Your task to perform on an android device: add a contact in the contacts app Image 0: 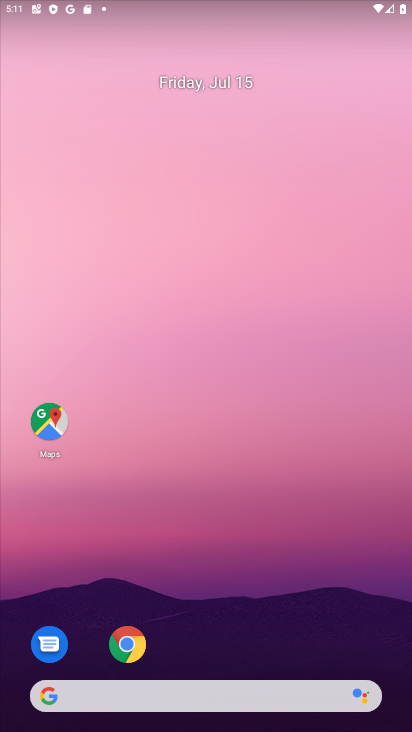
Step 0: drag from (187, 663) to (250, 210)
Your task to perform on an android device: add a contact in the contacts app Image 1: 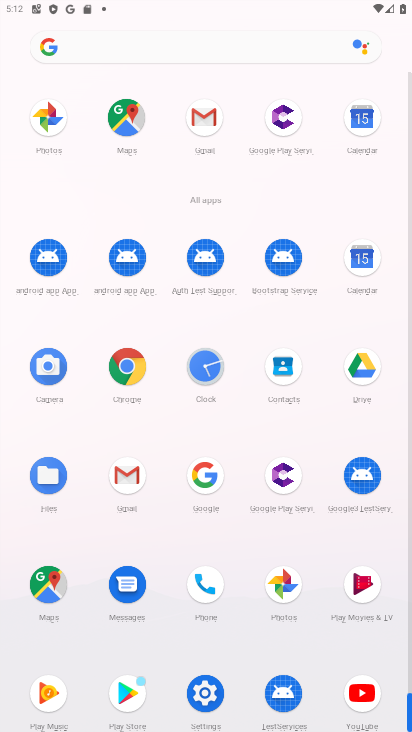
Step 1: click (203, 594)
Your task to perform on an android device: add a contact in the contacts app Image 2: 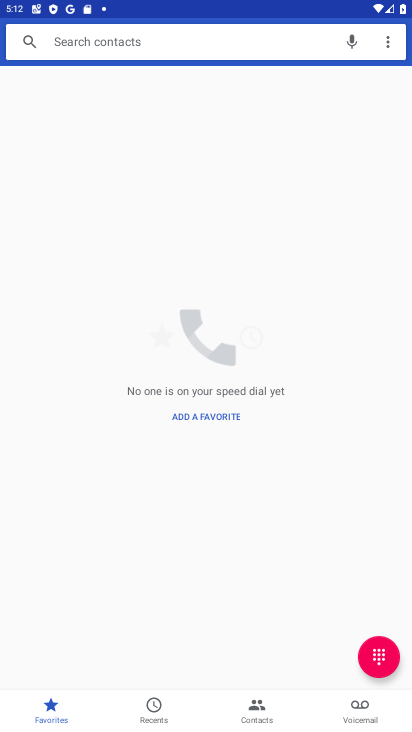
Step 2: click (386, 650)
Your task to perform on an android device: add a contact in the contacts app Image 3: 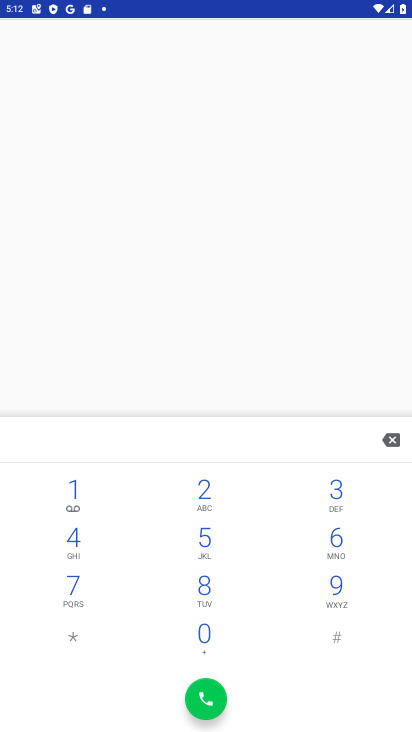
Step 3: task complete